Your task to perform on an android device: turn off location history Image 0: 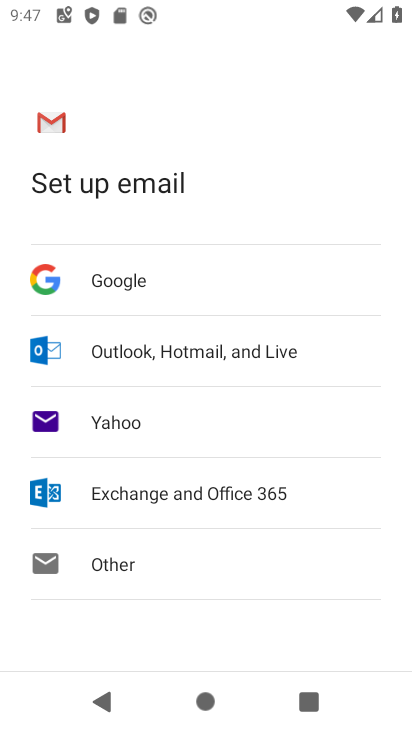
Step 0: press home button
Your task to perform on an android device: turn off location history Image 1: 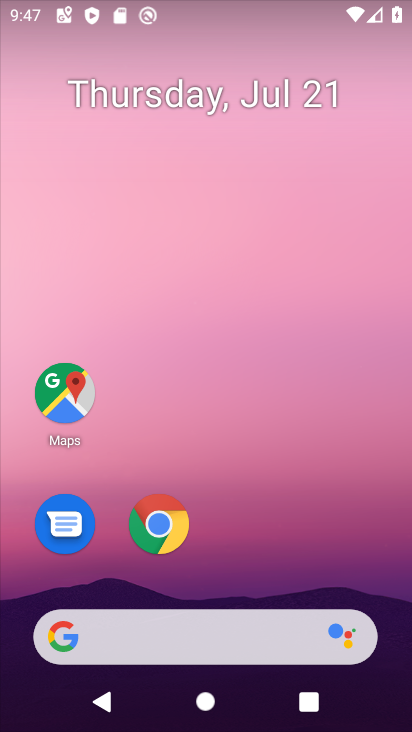
Step 1: click (69, 387)
Your task to perform on an android device: turn off location history Image 2: 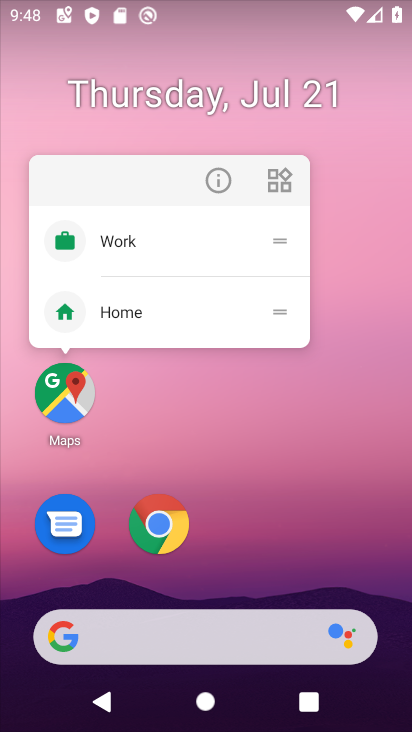
Step 2: click (62, 400)
Your task to perform on an android device: turn off location history Image 3: 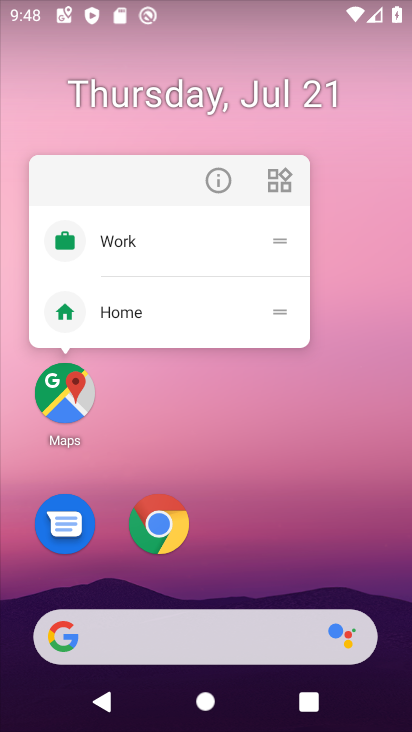
Step 3: click (68, 392)
Your task to perform on an android device: turn off location history Image 4: 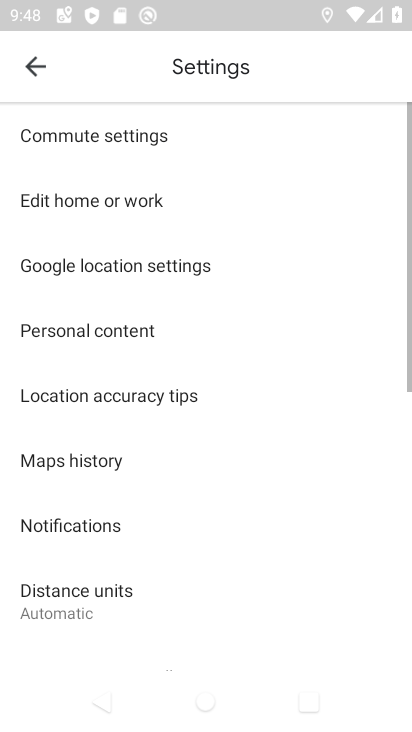
Step 4: click (36, 67)
Your task to perform on an android device: turn off location history Image 5: 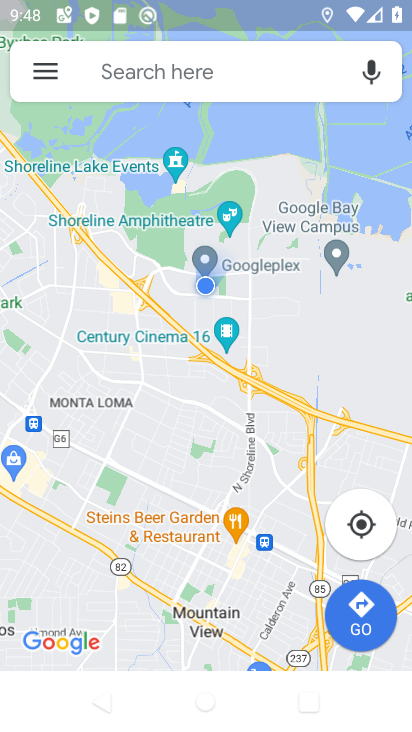
Step 5: click (37, 70)
Your task to perform on an android device: turn off location history Image 6: 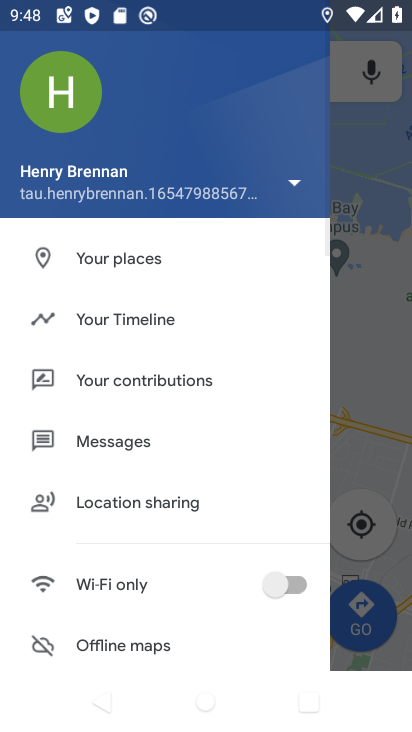
Step 6: drag from (185, 630) to (316, 170)
Your task to perform on an android device: turn off location history Image 7: 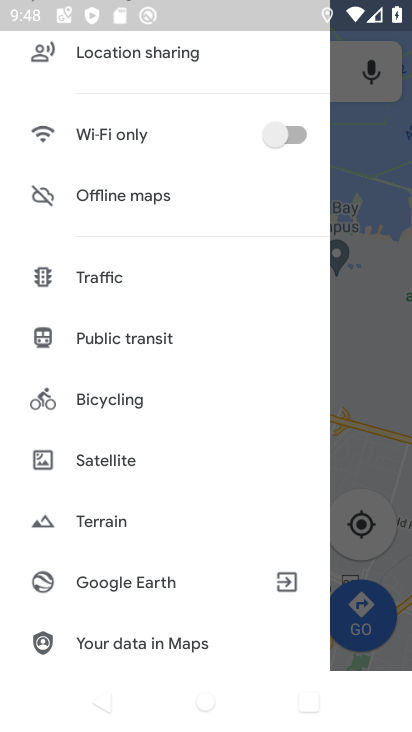
Step 7: drag from (195, 585) to (224, 202)
Your task to perform on an android device: turn off location history Image 8: 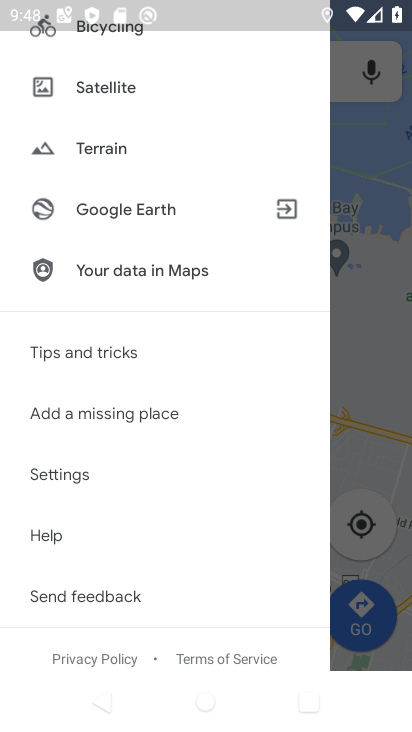
Step 8: drag from (202, 114) to (156, 673)
Your task to perform on an android device: turn off location history Image 9: 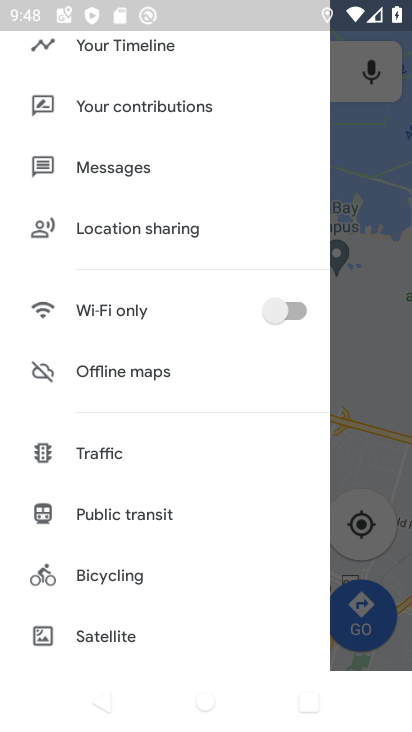
Step 9: drag from (209, 163) to (142, 605)
Your task to perform on an android device: turn off location history Image 10: 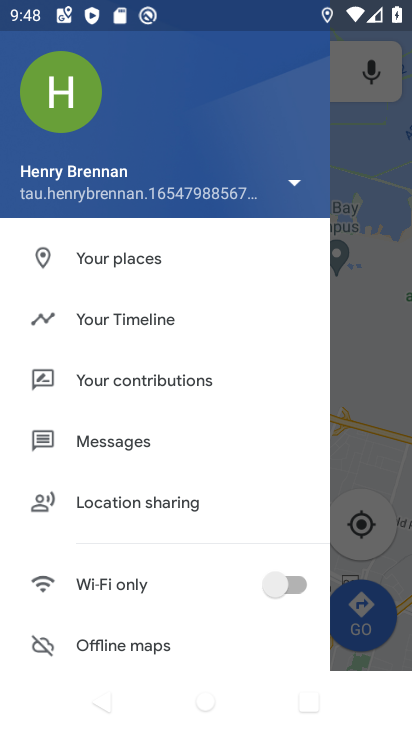
Step 10: click (128, 315)
Your task to perform on an android device: turn off location history Image 11: 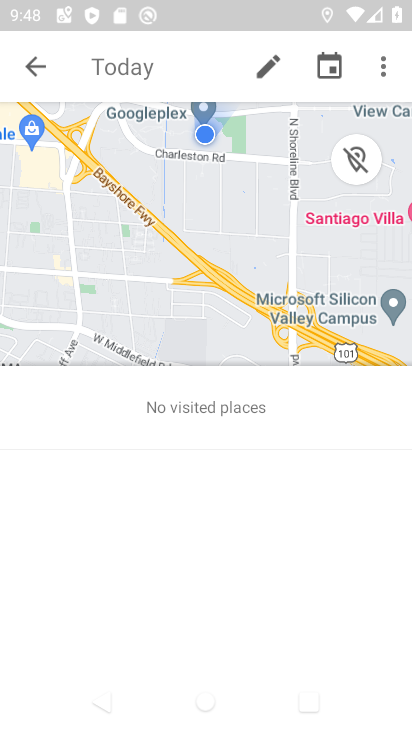
Step 11: click (385, 61)
Your task to perform on an android device: turn off location history Image 12: 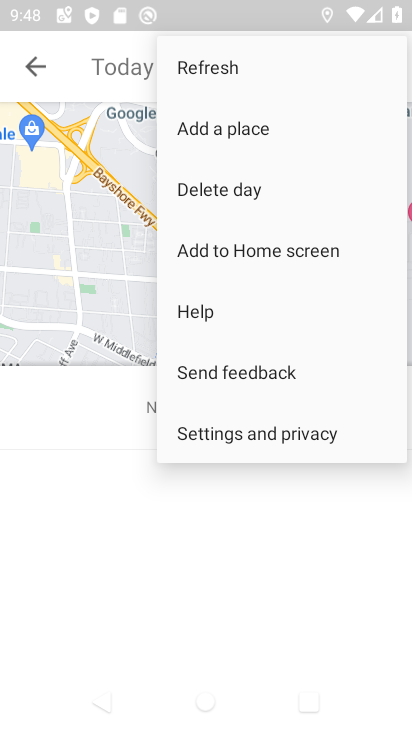
Step 12: click (242, 431)
Your task to perform on an android device: turn off location history Image 13: 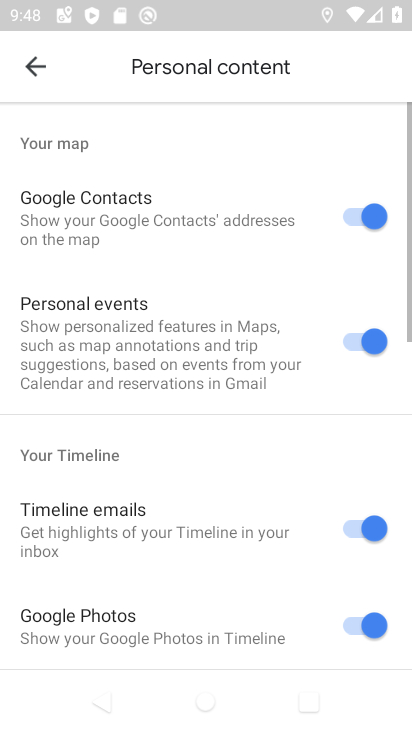
Step 13: drag from (191, 571) to (292, 127)
Your task to perform on an android device: turn off location history Image 14: 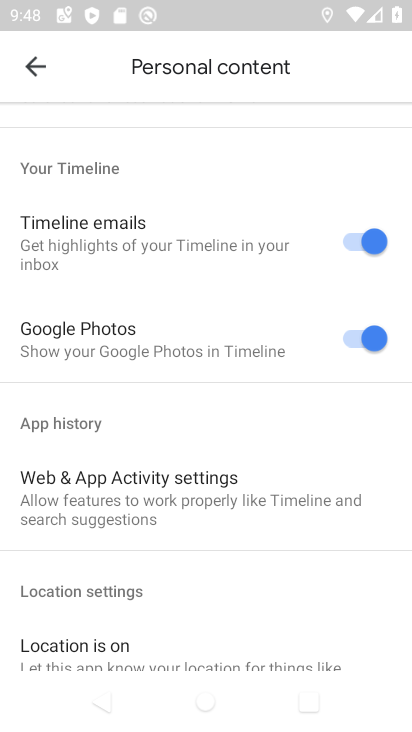
Step 14: drag from (211, 569) to (275, 181)
Your task to perform on an android device: turn off location history Image 15: 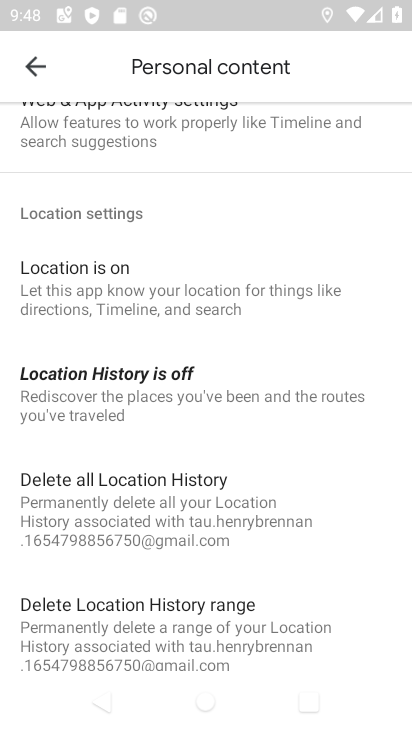
Step 15: click (136, 393)
Your task to perform on an android device: turn off location history Image 16: 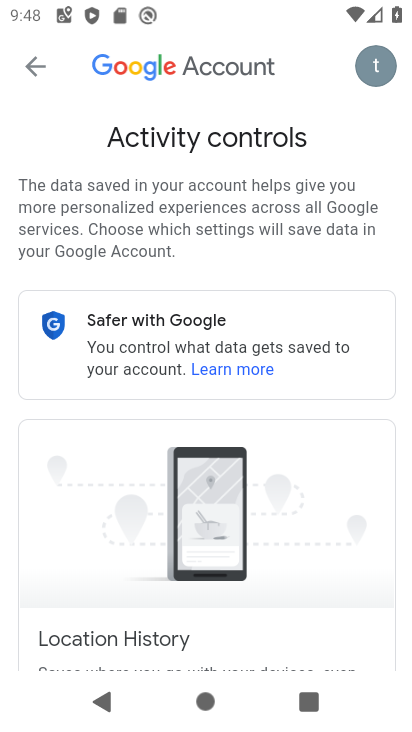
Step 16: drag from (280, 632) to (321, 140)
Your task to perform on an android device: turn off location history Image 17: 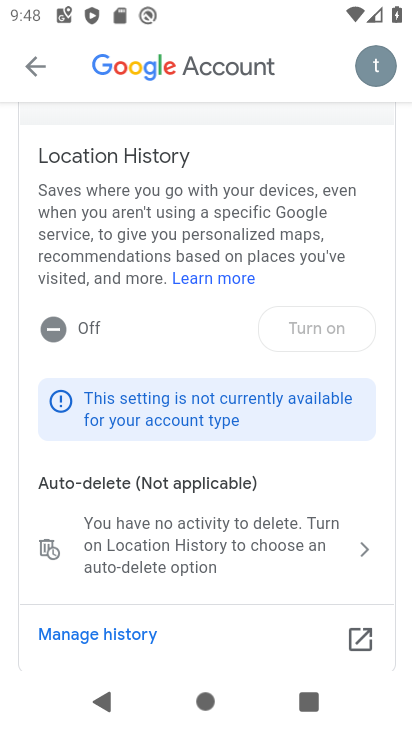
Step 17: click (62, 406)
Your task to perform on an android device: turn off location history Image 18: 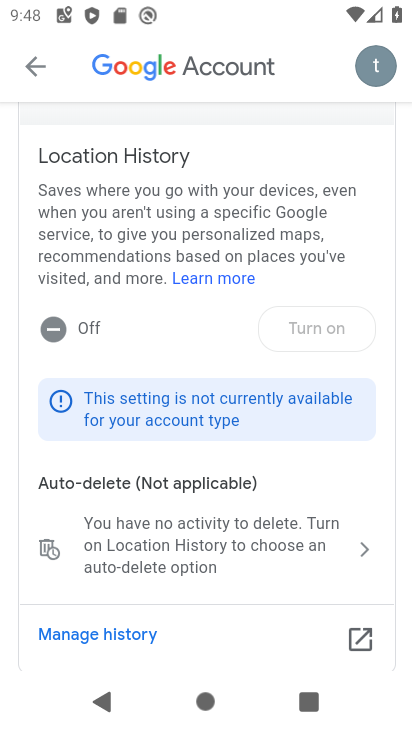
Step 18: click (240, 405)
Your task to perform on an android device: turn off location history Image 19: 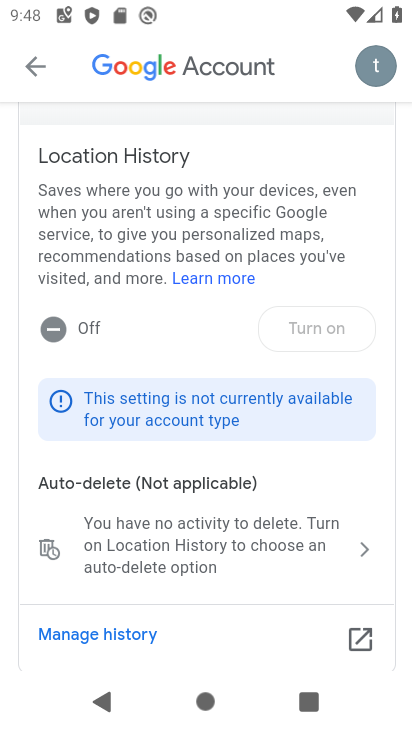
Step 19: task complete